Your task to perform on an android device: check android version Image 0: 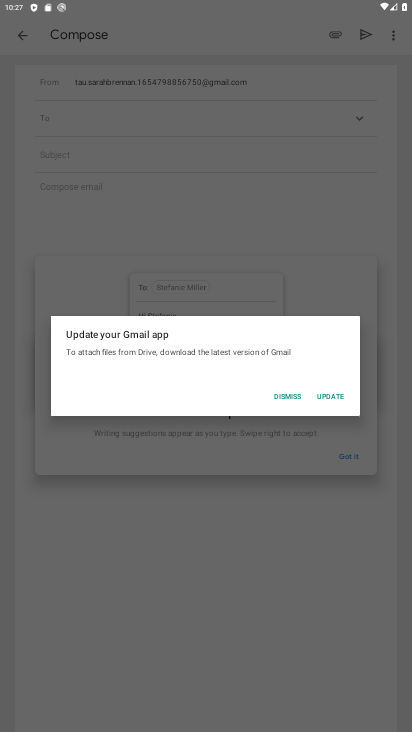
Step 0: press home button
Your task to perform on an android device: check android version Image 1: 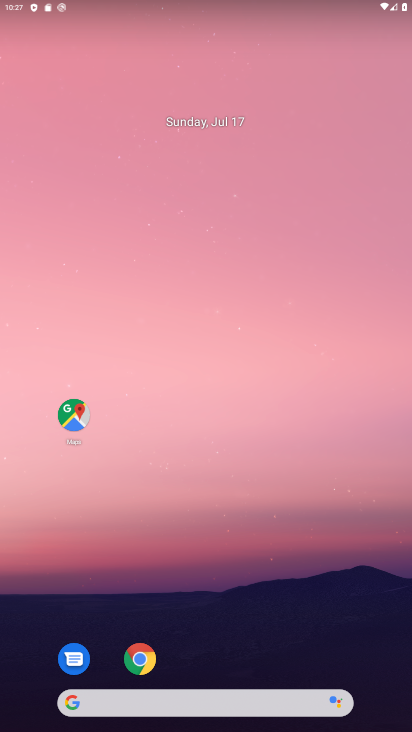
Step 1: drag from (268, 646) to (223, 102)
Your task to perform on an android device: check android version Image 2: 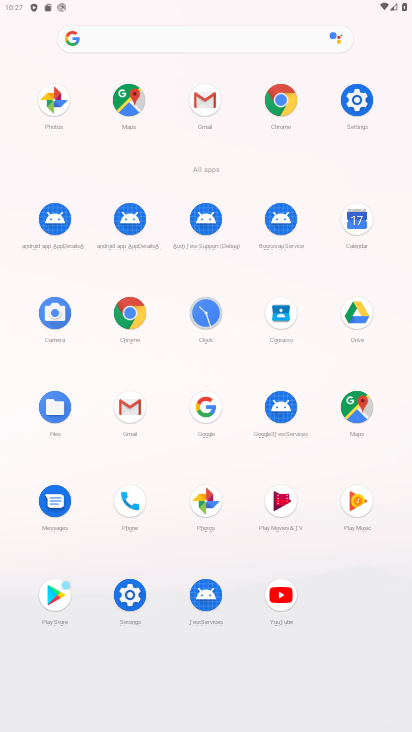
Step 2: click (364, 104)
Your task to perform on an android device: check android version Image 3: 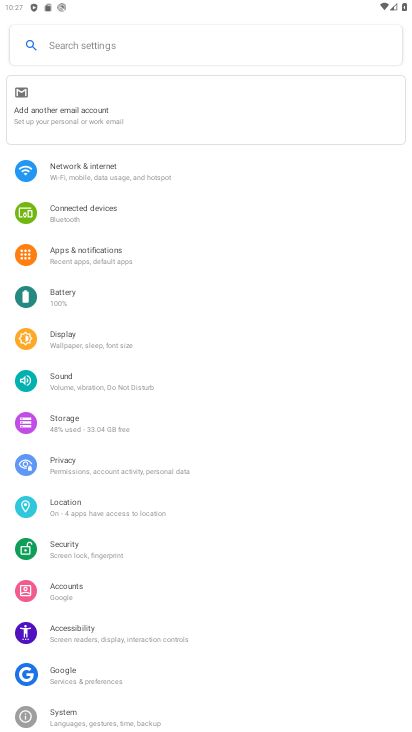
Step 3: drag from (215, 650) to (191, 107)
Your task to perform on an android device: check android version Image 4: 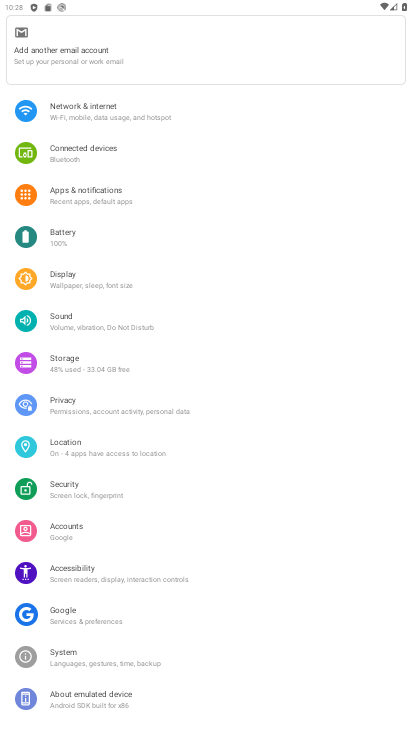
Step 4: drag from (246, 554) to (173, 24)
Your task to perform on an android device: check android version Image 5: 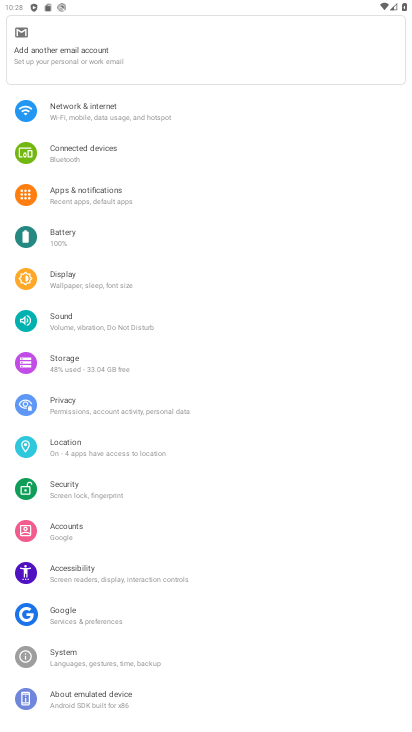
Step 5: click (103, 708)
Your task to perform on an android device: check android version Image 6: 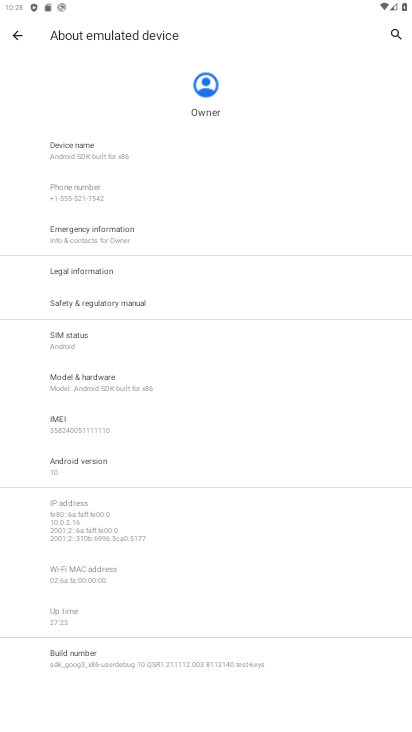
Step 6: click (170, 476)
Your task to perform on an android device: check android version Image 7: 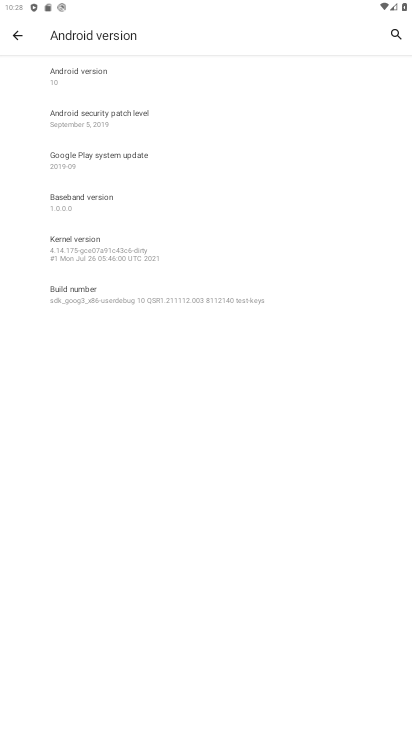
Step 7: task complete